Your task to perform on an android device: open a new tab in the chrome app Image 0: 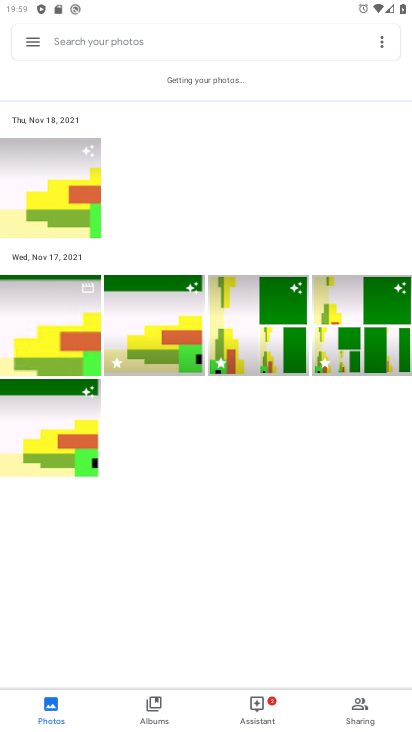
Step 0: click (181, 621)
Your task to perform on an android device: open a new tab in the chrome app Image 1: 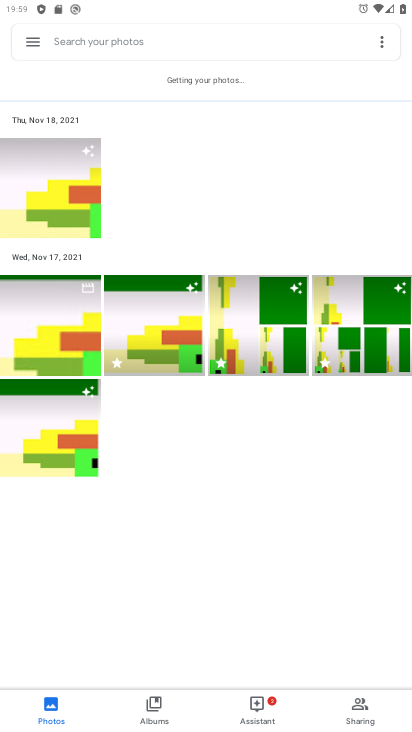
Step 1: click (125, 597)
Your task to perform on an android device: open a new tab in the chrome app Image 2: 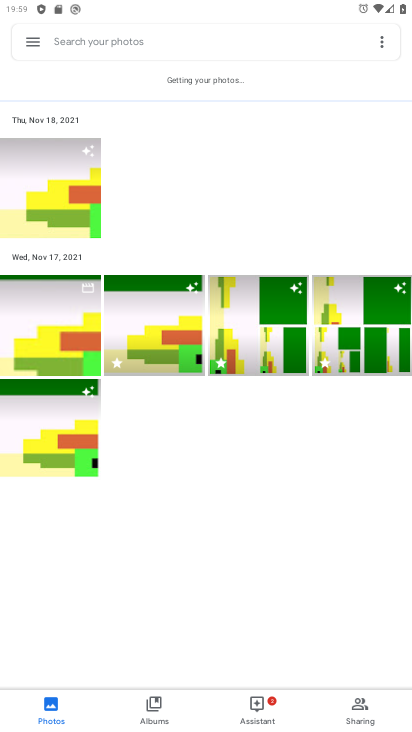
Step 2: click (123, 187)
Your task to perform on an android device: open a new tab in the chrome app Image 3: 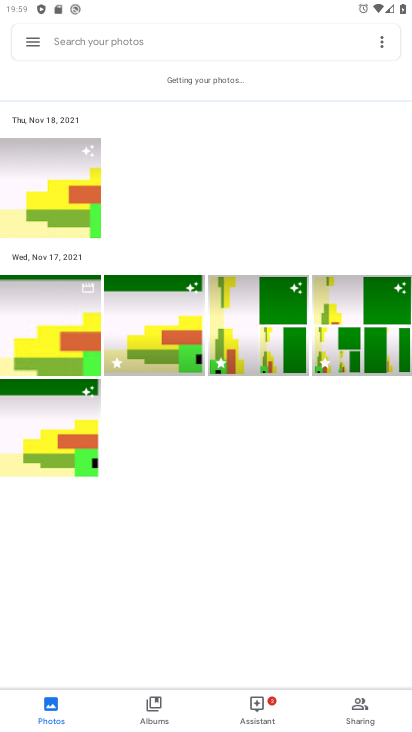
Step 3: click (123, 187)
Your task to perform on an android device: open a new tab in the chrome app Image 4: 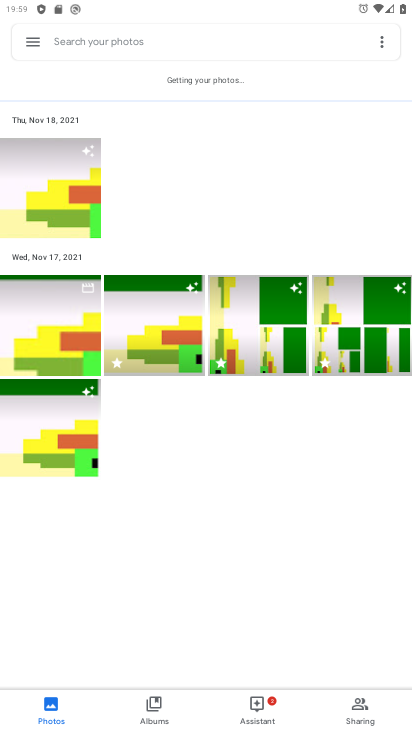
Step 4: click (142, 453)
Your task to perform on an android device: open a new tab in the chrome app Image 5: 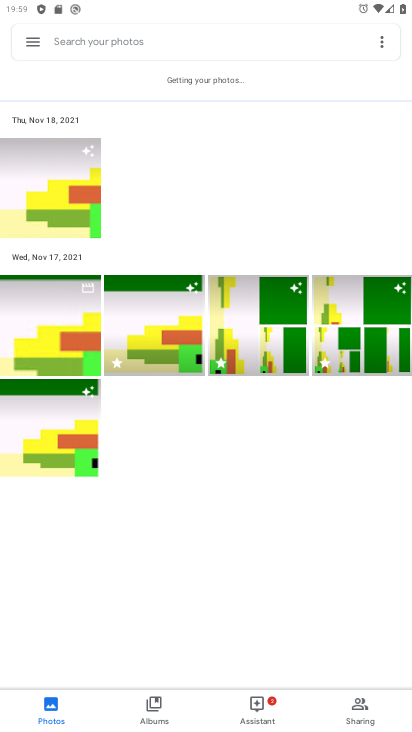
Step 5: press home button
Your task to perform on an android device: open a new tab in the chrome app Image 6: 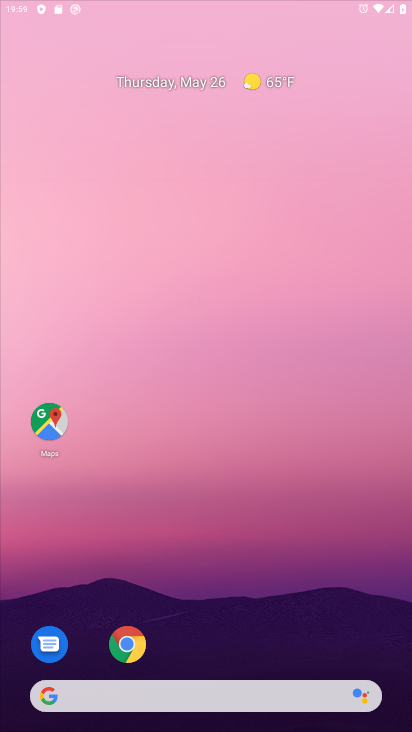
Step 6: drag from (192, 579) to (277, 63)
Your task to perform on an android device: open a new tab in the chrome app Image 7: 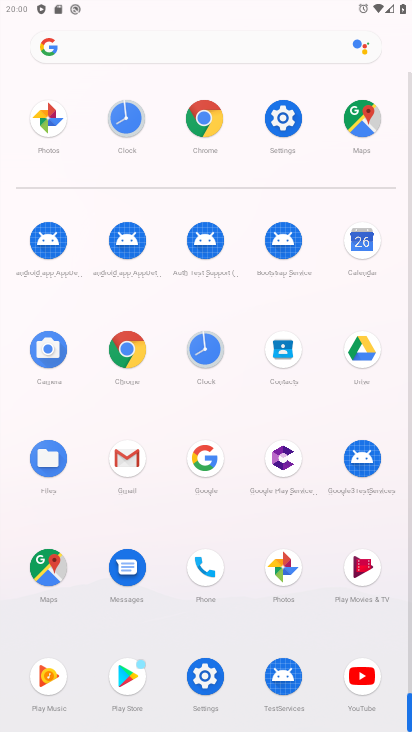
Step 7: click (125, 345)
Your task to perform on an android device: open a new tab in the chrome app Image 8: 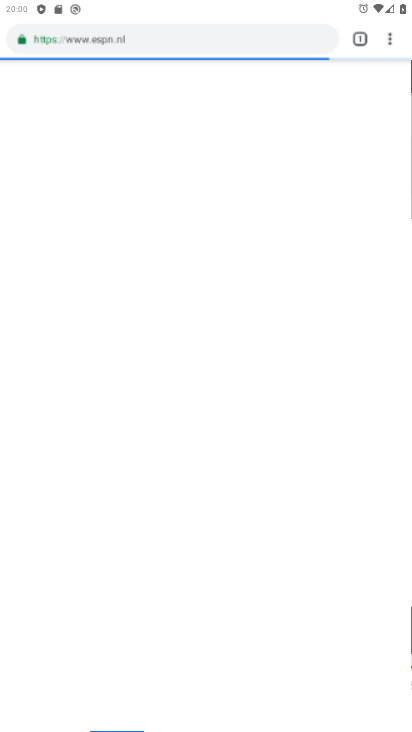
Step 8: click (362, 38)
Your task to perform on an android device: open a new tab in the chrome app Image 9: 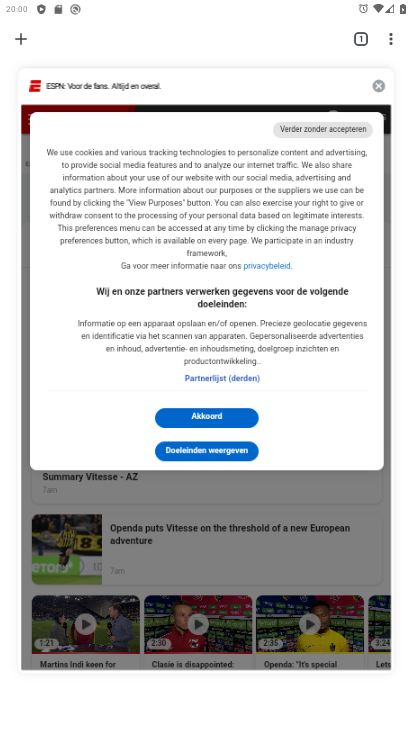
Step 9: click (23, 46)
Your task to perform on an android device: open a new tab in the chrome app Image 10: 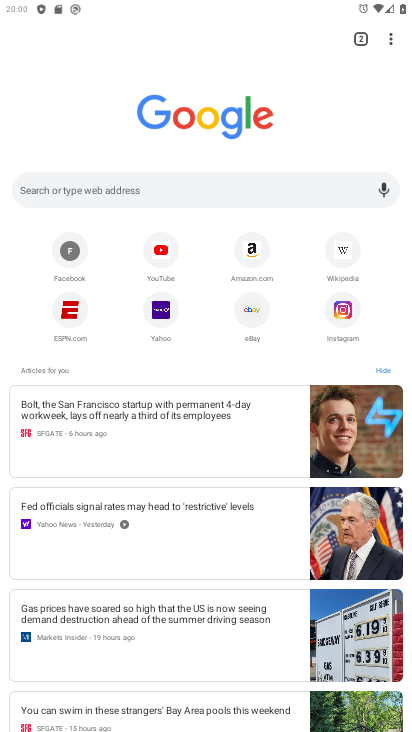
Step 10: task complete